Your task to perform on an android device: Open the phone app and click the voicemail tab. Image 0: 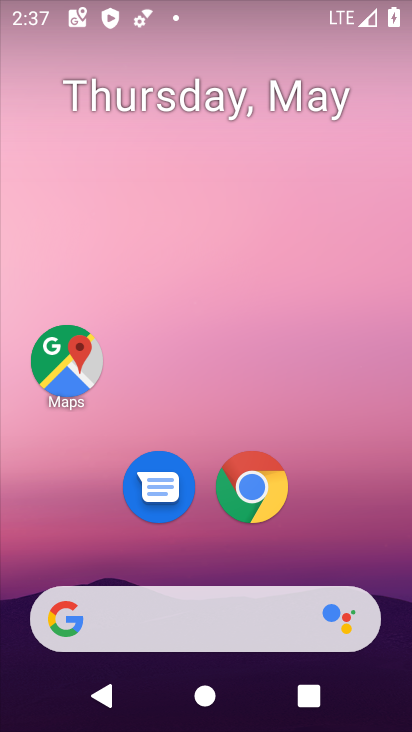
Step 0: click (263, 94)
Your task to perform on an android device: Open the phone app and click the voicemail tab. Image 1: 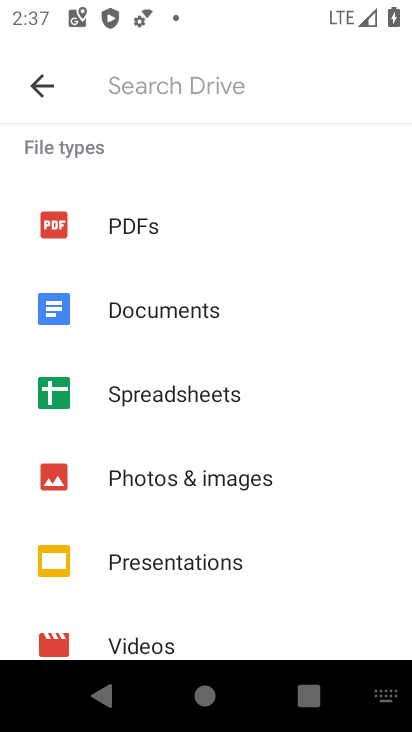
Step 1: press home button
Your task to perform on an android device: Open the phone app and click the voicemail tab. Image 2: 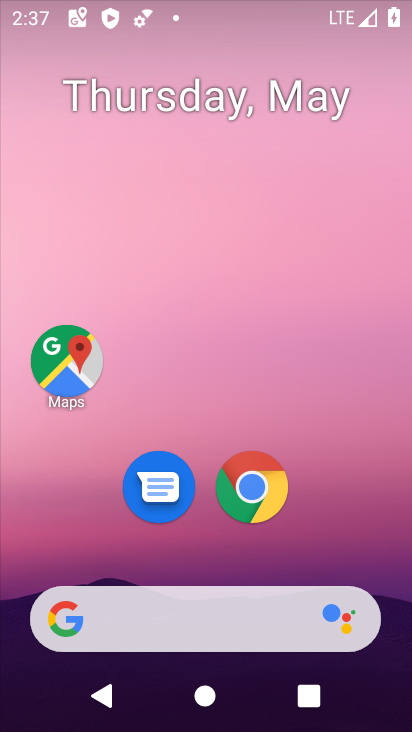
Step 2: drag from (211, 626) to (258, 159)
Your task to perform on an android device: Open the phone app and click the voicemail tab. Image 3: 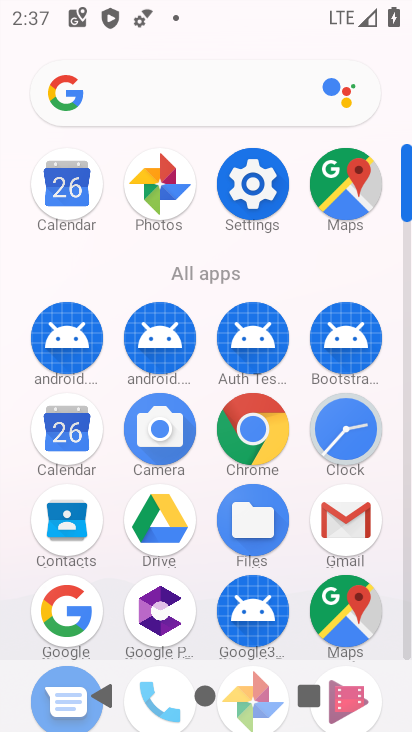
Step 3: drag from (198, 513) to (234, 259)
Your task to perform on an android device: Open the phone app and click the voicemail tab. Image 4: 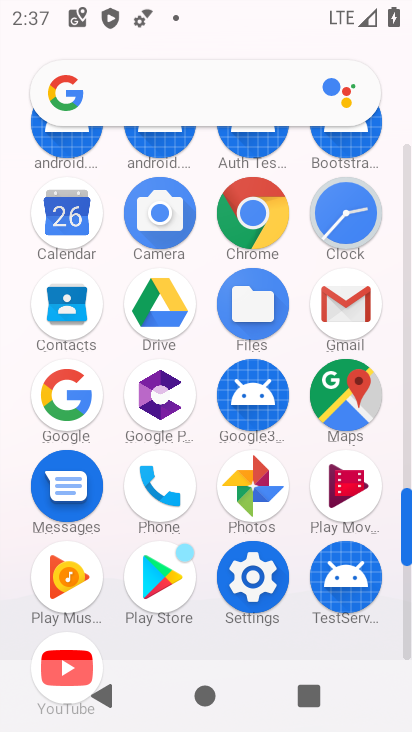
Step 4: click (164, 485)
Your task to perform on an android device: Open the phone app and click the voicemail tab. Image 5: 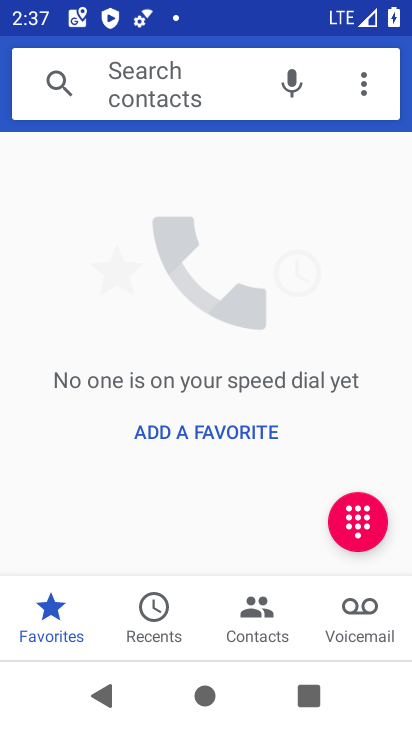
Step 5: click (345, 616)
Your task to perform on an android device: Open the phone app and click the voicemail tab. Image 6: 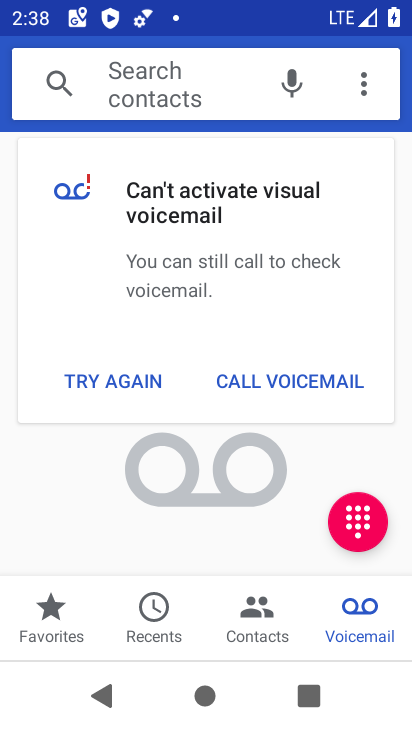
Step 6: task complete